Your task to perform on an android device: Open Android settings Image 0: 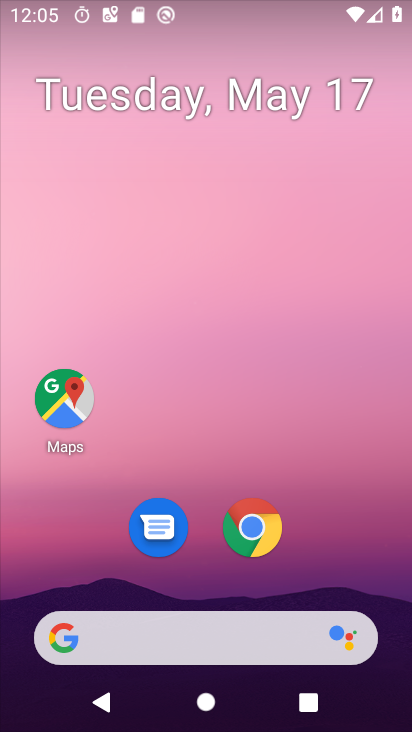
Step 0: drag from (297, 571) to (320, 160)
Your task to perform on an android device: Open Android settings Image 1: 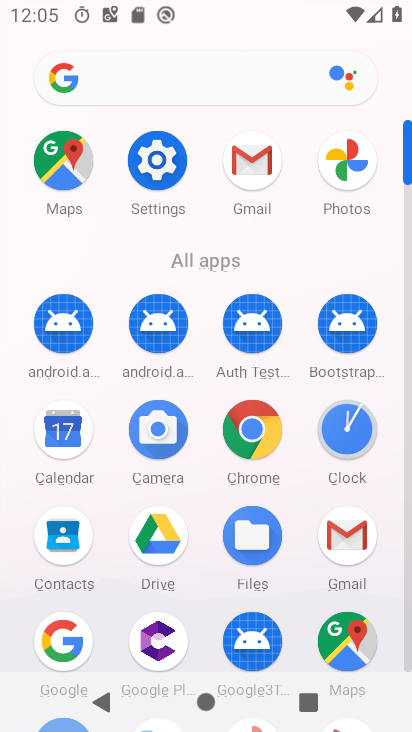
Step 1: click (162, 176)
Your task to perform on an android device: Open Android settings Image 2: 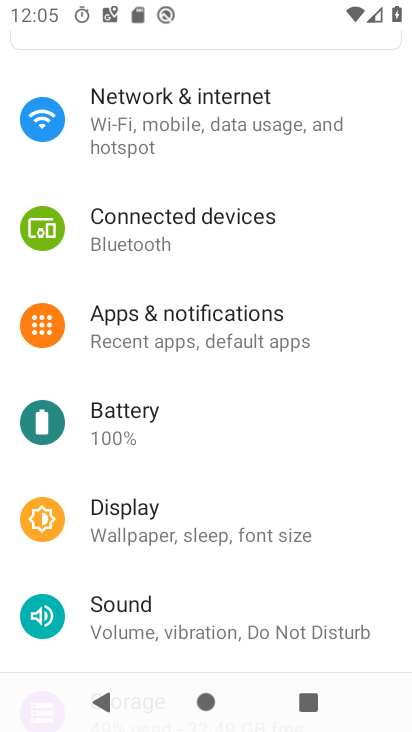
Step 2: drag from (196, 610) to (251, 125)
Your task to perform on an android device: Open Android settings Image 3: 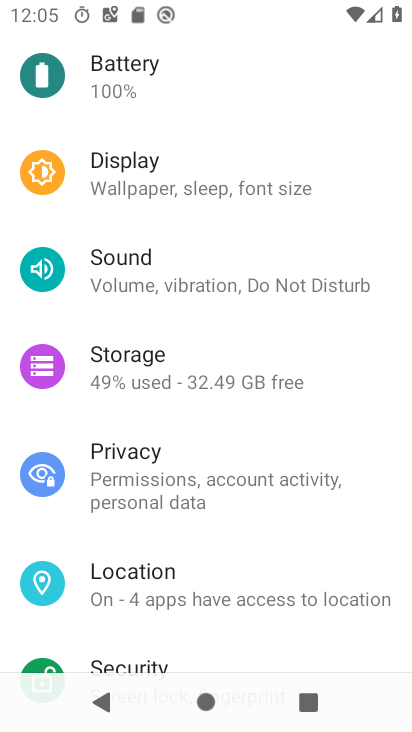
Step 3: drag from (175, 618) to (230, 81)
Your task to perform on an android device: Open Android settings Image 4: 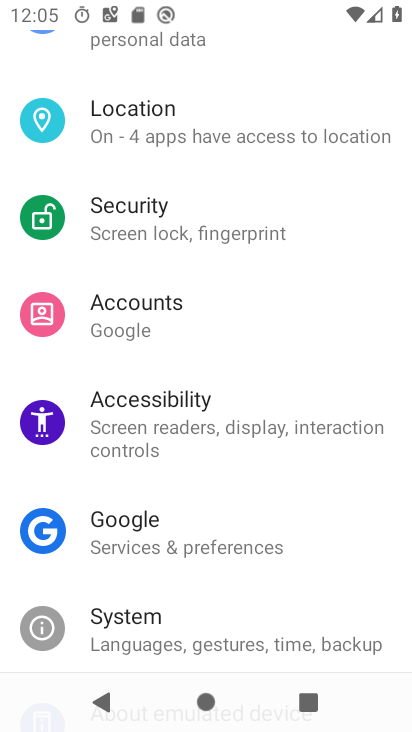
Step 4: drag from (202, 626) to (257, 153)
Your task to perform on an android device: Open Android settings Image 5: 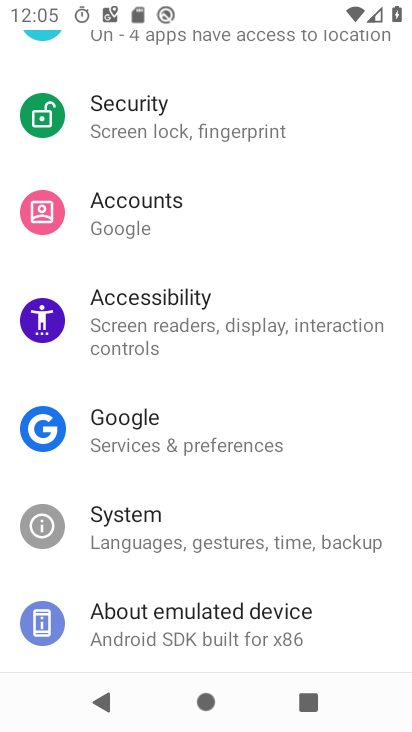
Step 5: click (221, 623)
Your task to perform on an android device: Open Android settings Image 6: 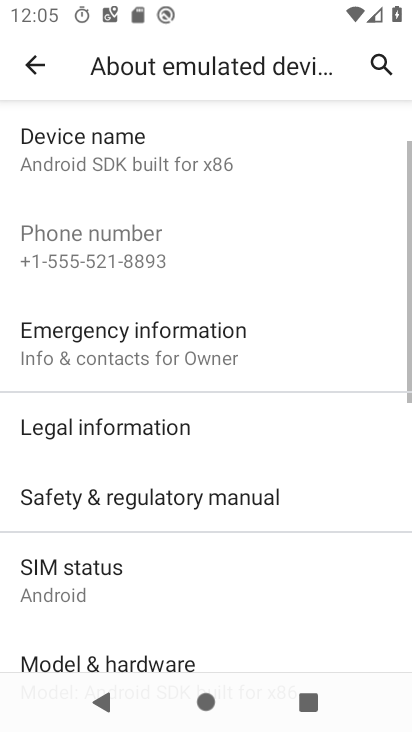
Step 6: drag from (184, 569) to (234, 125)
Your task to perform on an android device: Open Android settings Image 7: 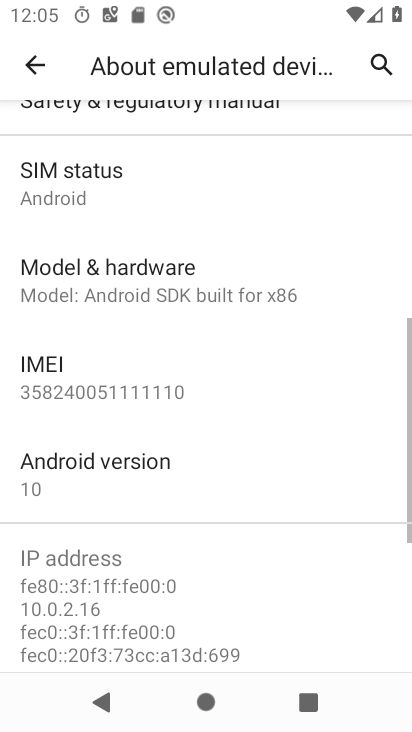
Step 7: click (165, 461)
Your task to perform on an android device: Open Android settings Image 8: 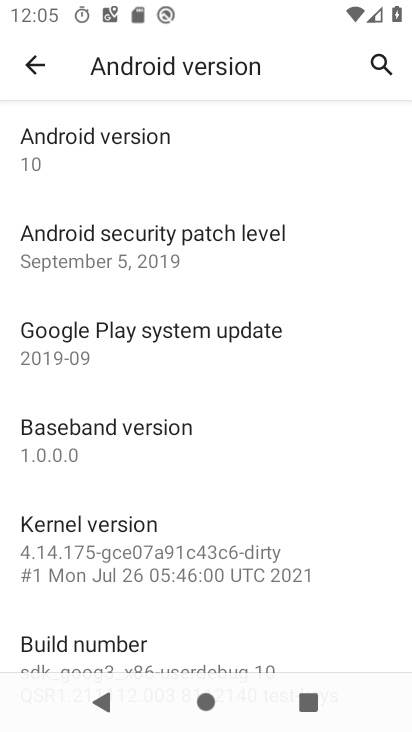
Step 8: task complete